Your task to perform on an android device: turn smart compose on in the gmail app Image 0: 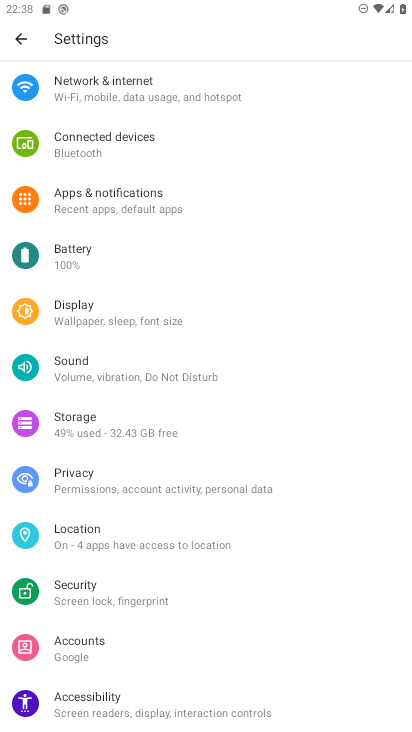
Step 0: press home button
Your task to perform on an android device: turn smart compose on in the gmail app Image 1: 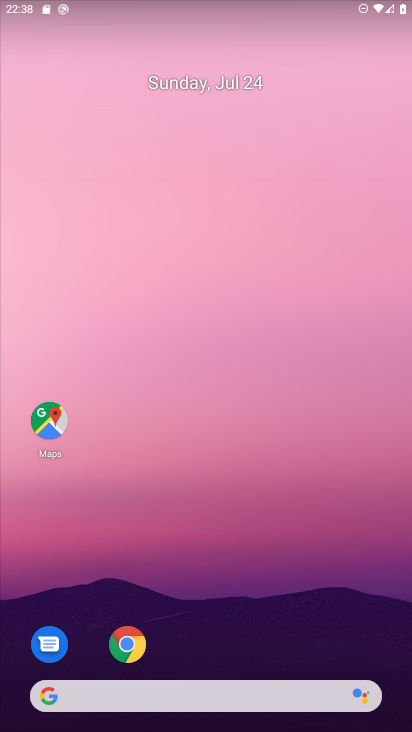
Step 1: drag from (376, 659) to (317, 13)
Your task to perform on an android device: turn smart compose on in the gmail app Image 2: 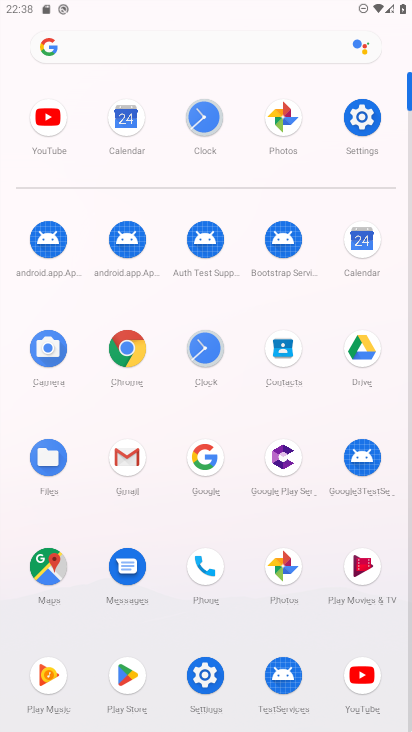
Step 2: click (128, 458)
Your task to perform on an android device: turn smart compose on in the gmail app Image 3: 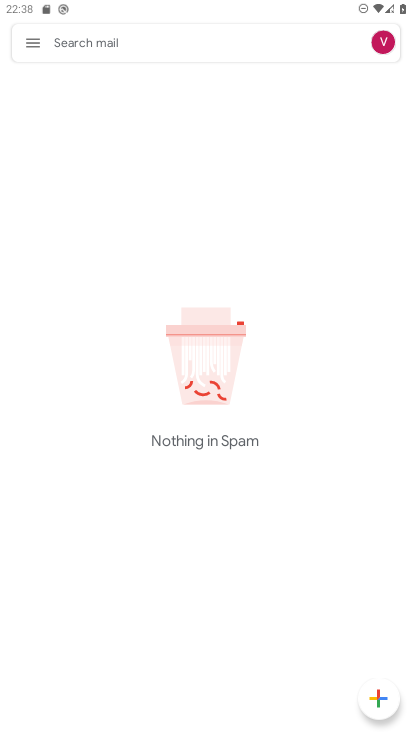
Step 3: click (29, 44)
Your task to perform on an android device: turn smart compose on in the gmail app Image 4: 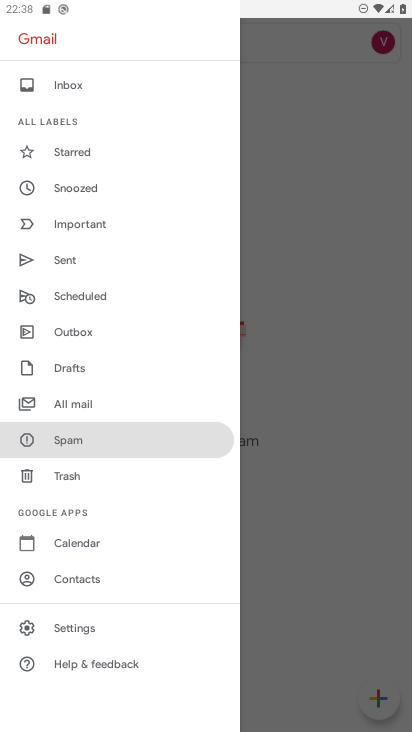
Step 4: click (84, 626)
Your task to perform on an android device: turn smart compose on in the gmail app Image 5: 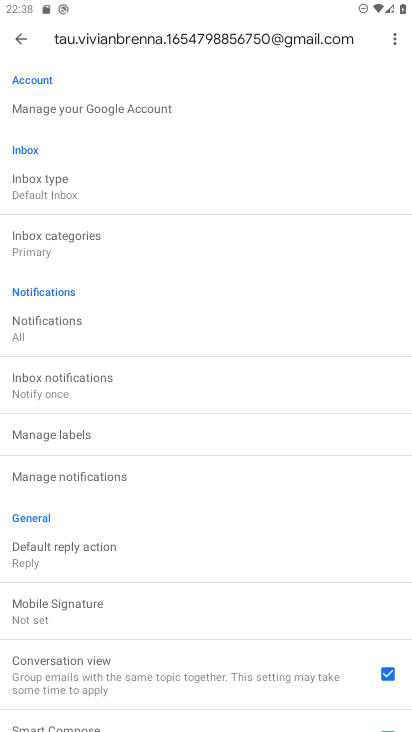
Step 5: task complete